Your task to perform on an android device: Search for sushi restaurants on Maps Image 0: 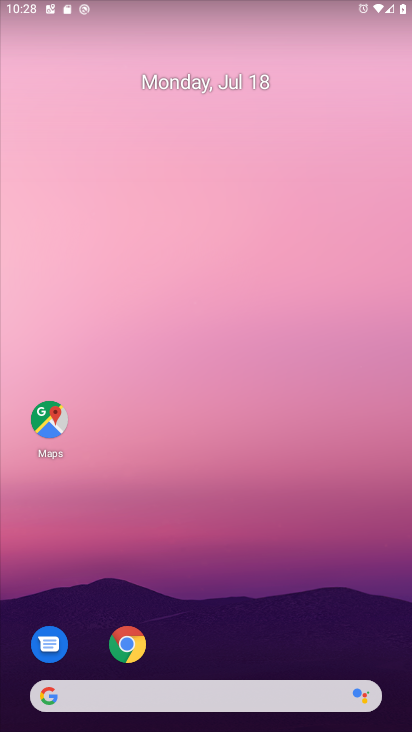
Step 0: click (42, 422)
Your task to perform on an android device: Search for sushi restaurants on Maps Image 1: 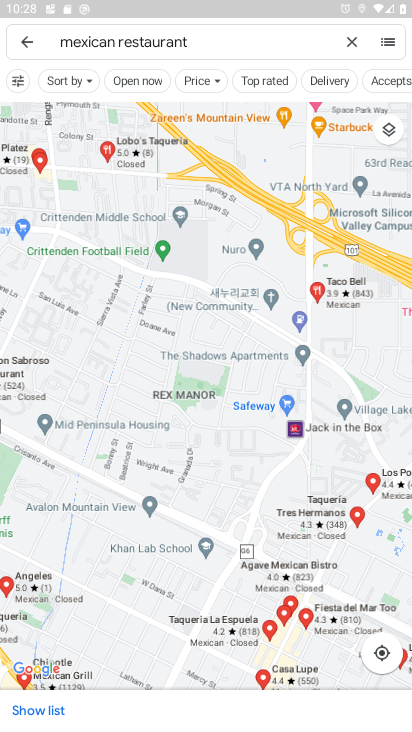
Step 1: task complete